Your task to perform on an android device: set an alarm Image 0: 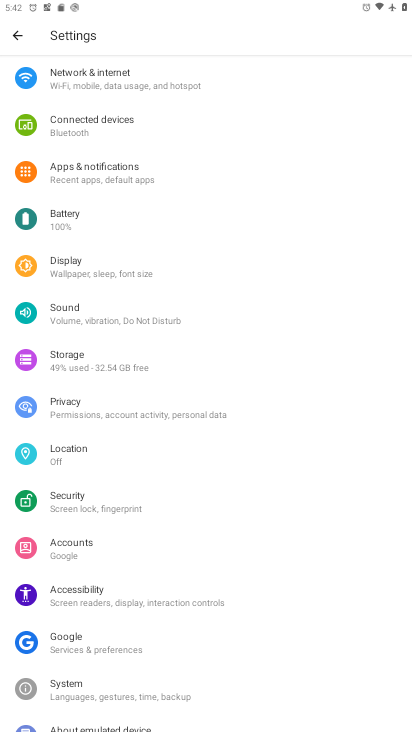
Step 0: press home button
Your task to perform on an android device: set an alarm Image 1: 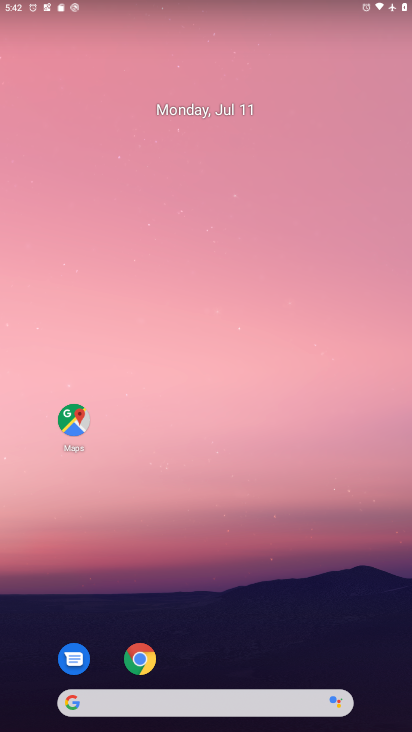
Step 1: drag from (380, 658) to (317, 116)
Your task to perform on an android device: set an alarm Image 2: 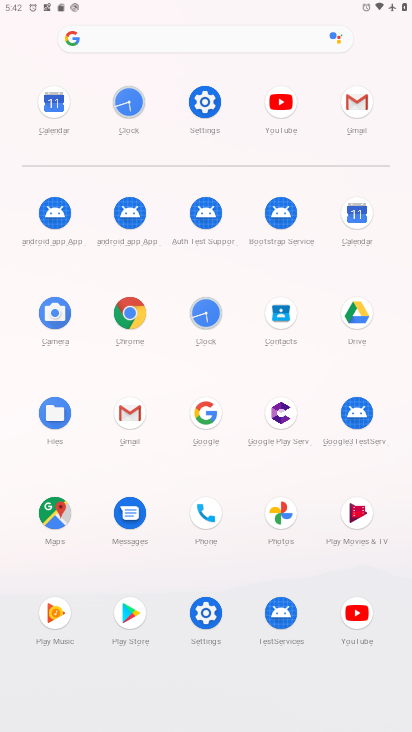
Step 2: click (207, 314)
Your task to perform on an android device: set an alarm Image 3: 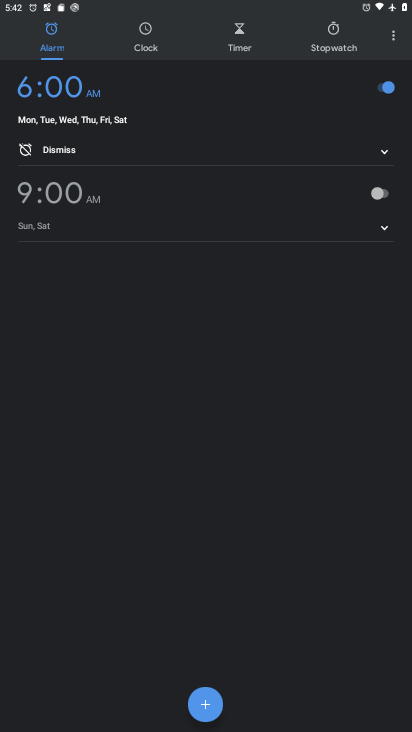
Step 3: click (63, 197)
Your task to perform on an android device: set an alarm Image 4: 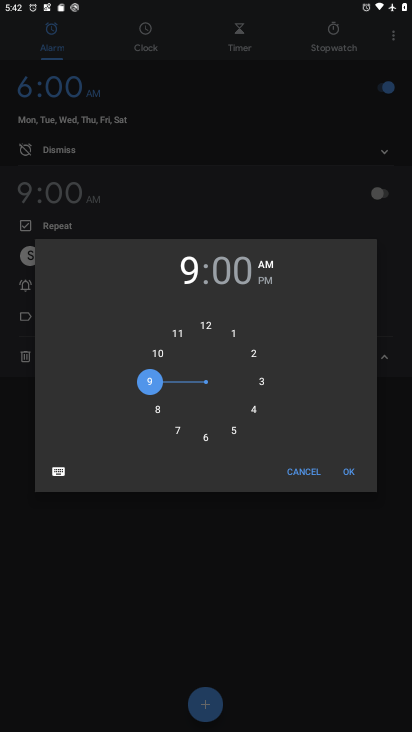
Step 4: click (235, 434)
Your task to perform on an android device: set an alarm Image 5: 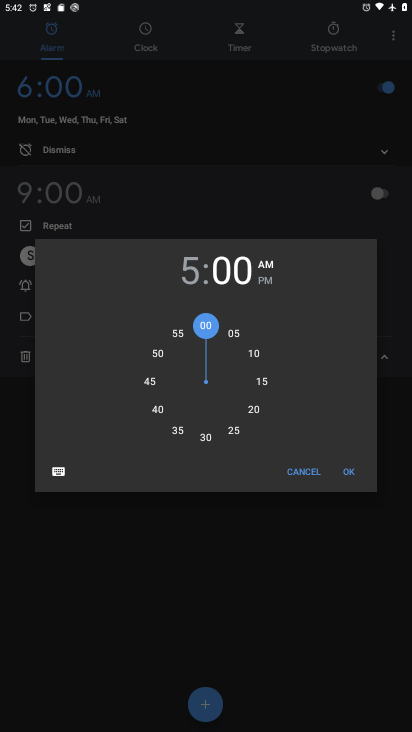
Step 5: click (263, 380)
Your task to perform on an android device: set an alarm Image 6: 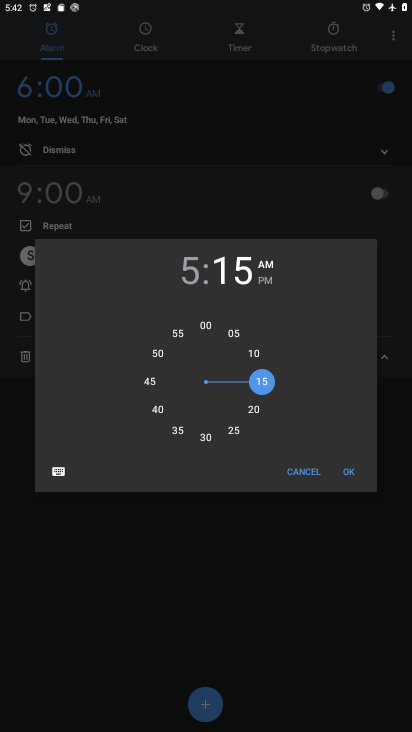
Step 6: click (347, 475)
Your task to perform on an android device: set an alarm Image 7: 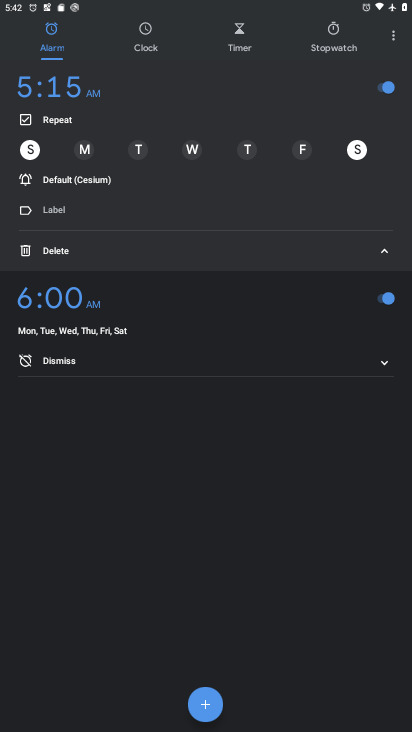
Step 7: click (85, 149)
Your task to perform on an android device: set an alarm Image 8: 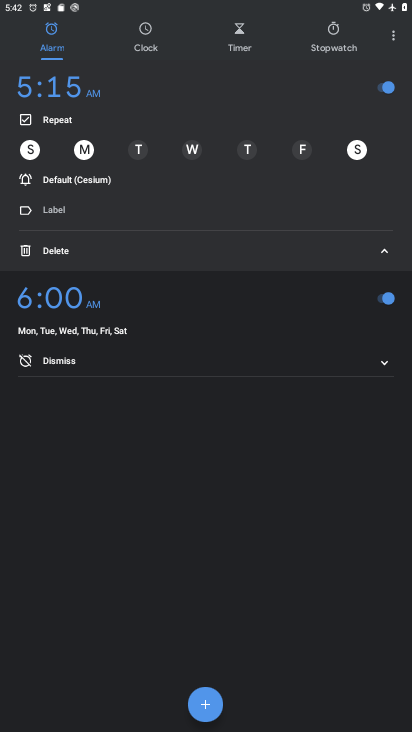
Step 8: click (133, 154)
Your task to perform on an android device: set an alarm Image 9: 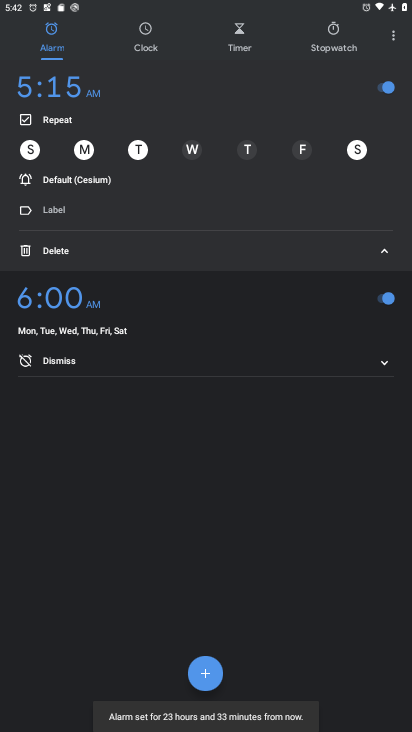
Step 9: click (185, 154)
Your task to perform on an android device: set an alarm Image 10: 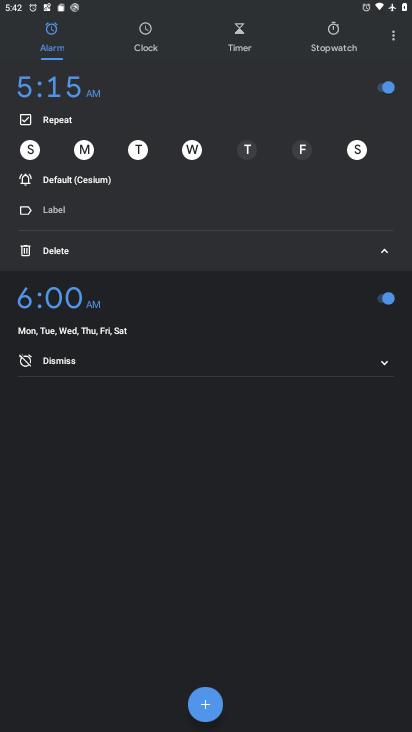
Step 10: click (290, 150)
Your task to perform on an android device: set an alarm Image 11: 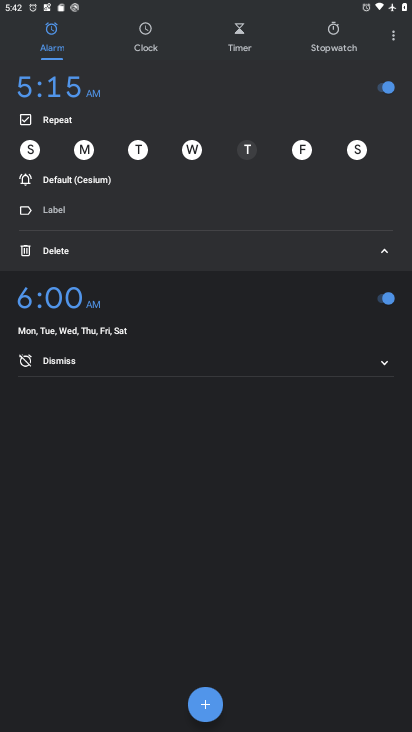
Step 11: click (234, 149)
Your task to perform on an android device: set an alarm Image 12: 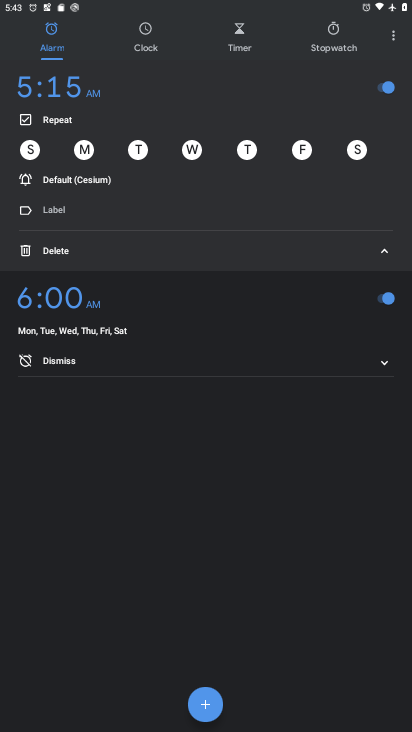
Step 12: click (25, 148)
Your task to perform on an android device: set an alarm Image 13: 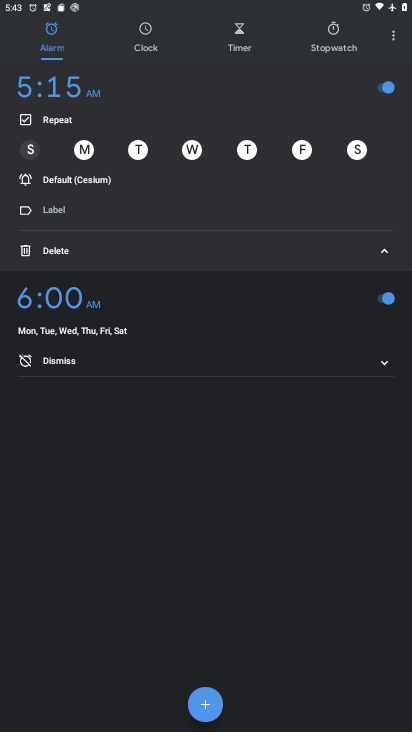
Step 13: click (379, 250)
Your task to perform on an android device: set an alarm Image 14: 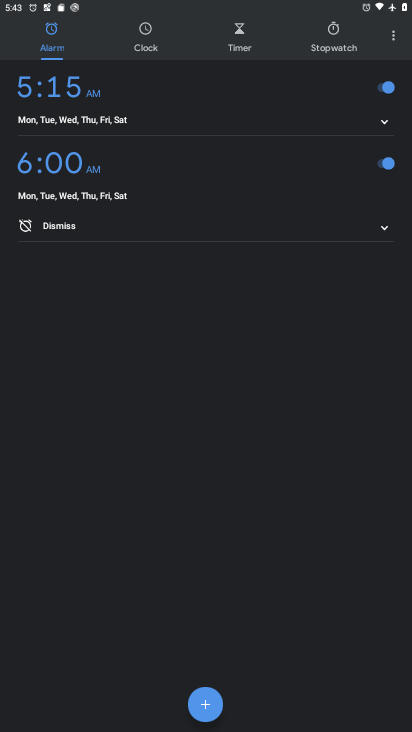
Step 14: task complete